Your task to perform on an android device: open app "Google Play services" Image 0: 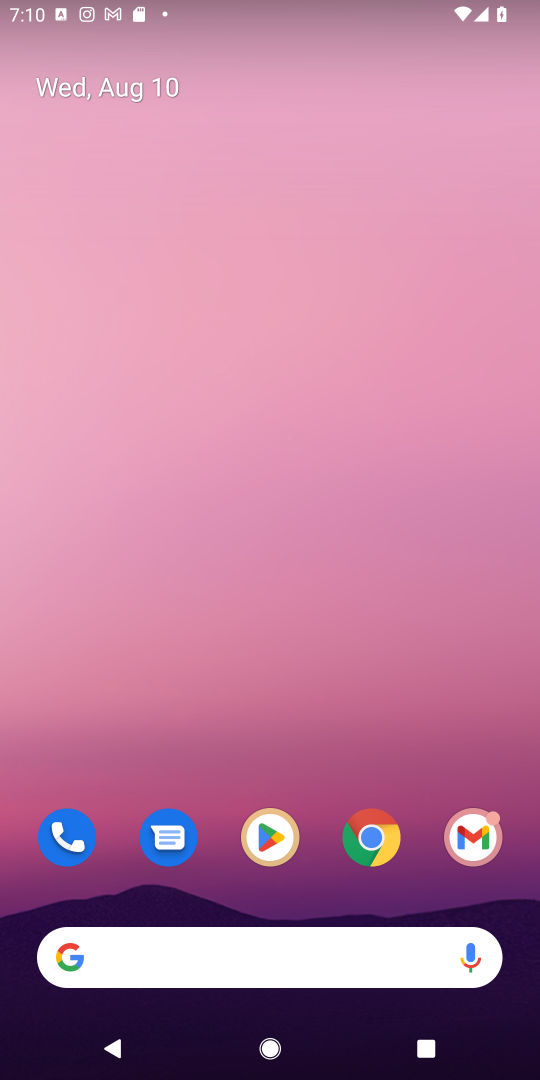
Step 0: click (270, 845)
Your task to perform on an android device: open app "Google Play services" Image 1: 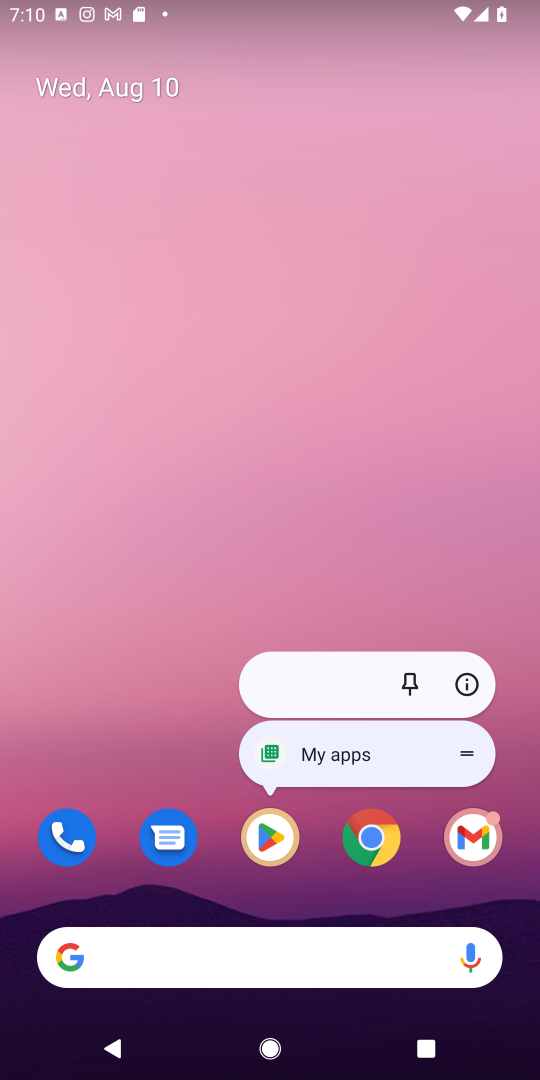
Step 1: click (265, 834)
Your task to perform on an android device: open app "Google Play services" Image 2: 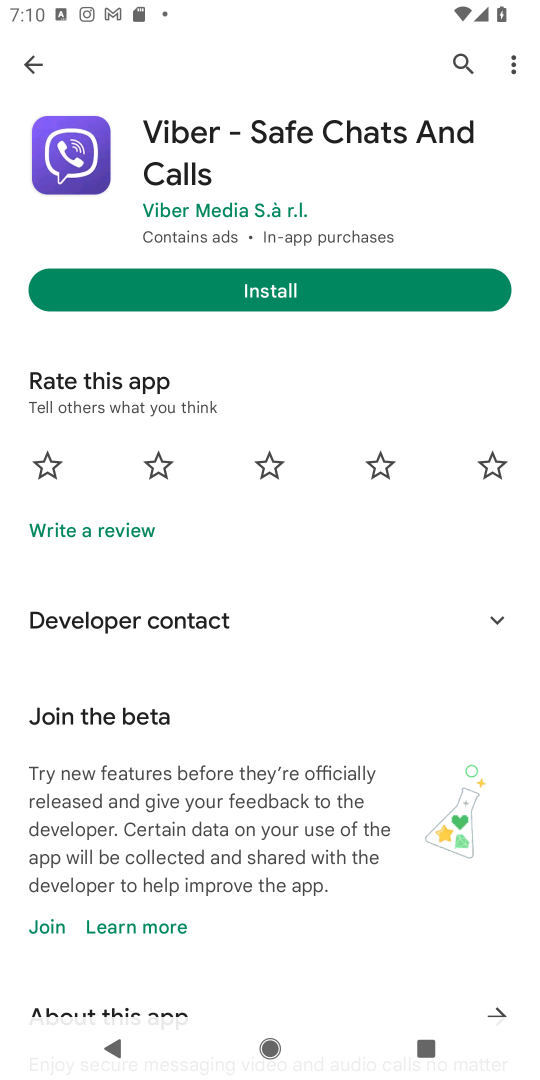
Step 2: click (461, 52)
Your task to perform on an android device: open app "Google Play services" Image 3: 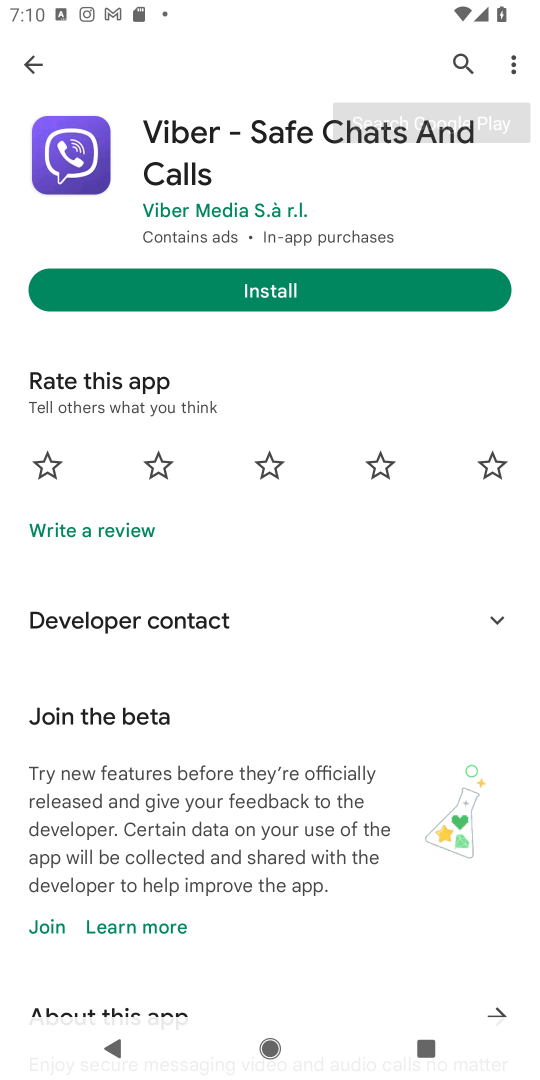
Step 3: click (459, 71)
Your task to perform on an android device: open app "Google Play services" Image 4: 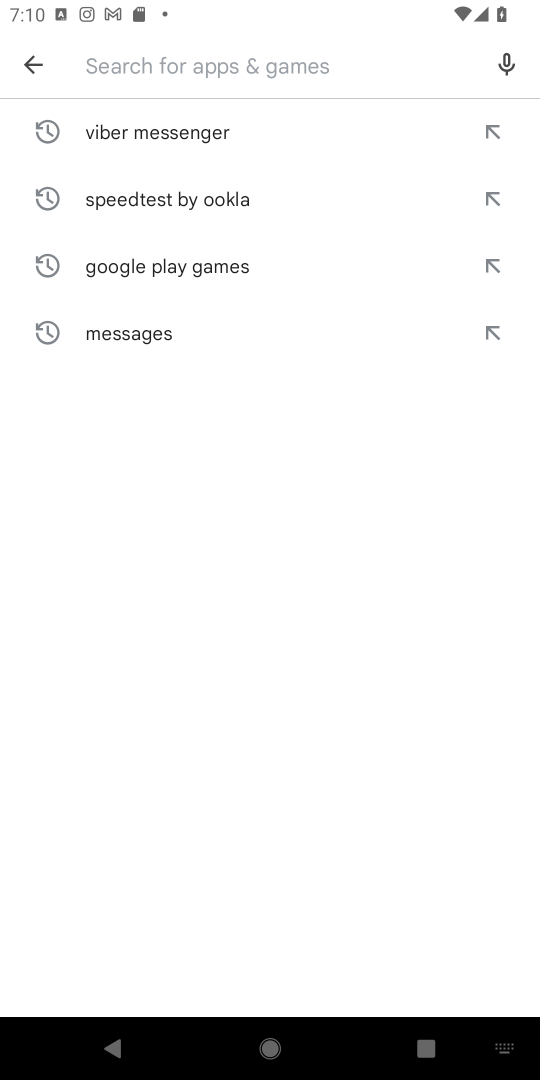
Step 4: type "Google Play services"
Your task to perform on an android device: open app "Google Play services" Image 5: 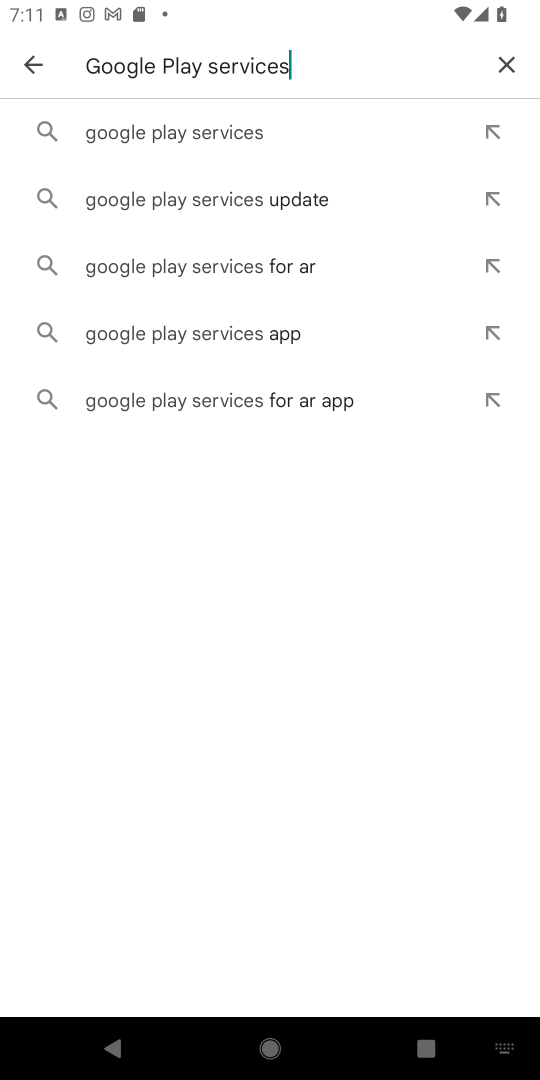
Step 5: click (242, 132)
Your task to perform on an android device: open app "Google Play services" Image 6: 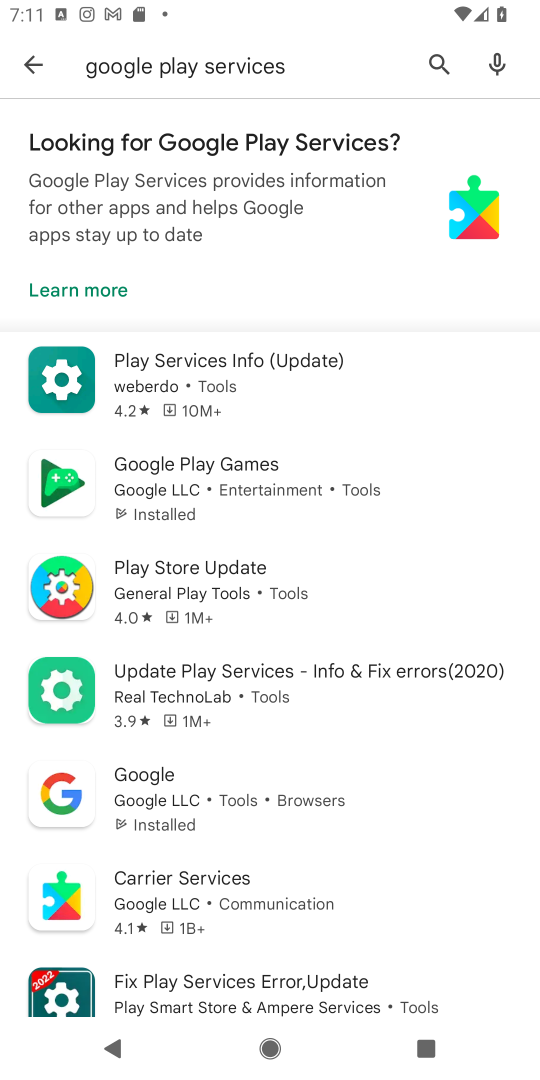
Step 6: task complete